Your task to perform on an android device: move an email to a new category in the gmail app Image 0: 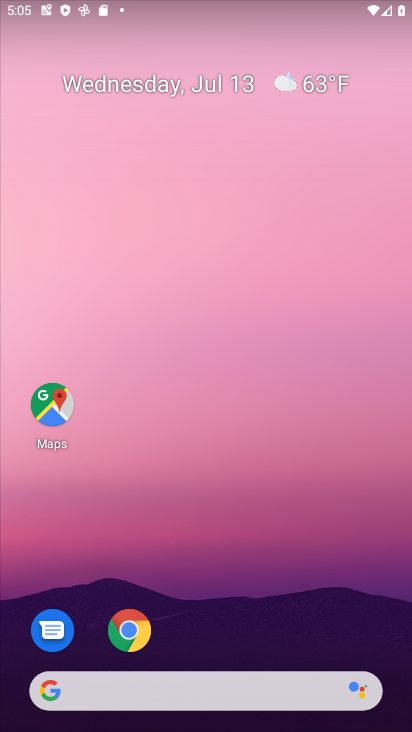
Step 0: press home button
Your task to perform on an android device: move an email to a new category in the gmail app Image 1: 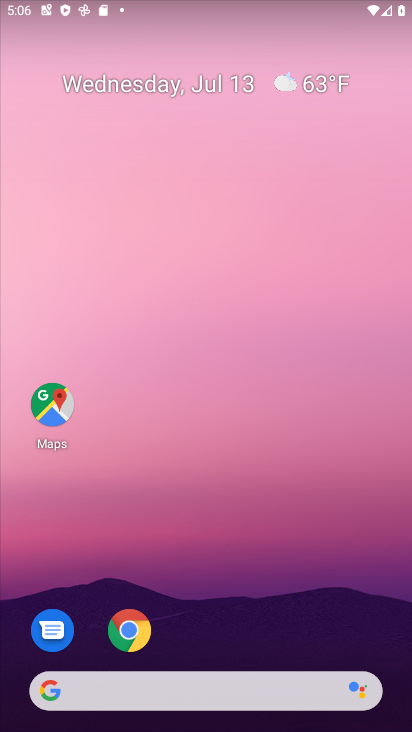
Step 1: drag from (226, 651) to (292, 157)
Your task to perform on an android device: move an email to a new category in the gmail app Image 2: 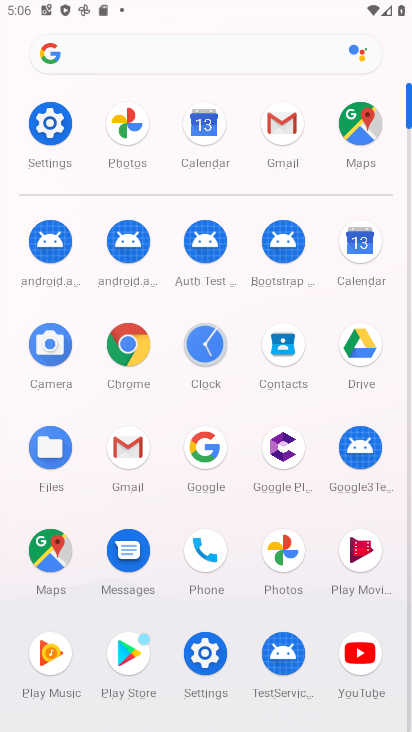
Step 2: click (130, 453)
Your task to perform on an android device: move an email to a new category in the gmail app Image 3: 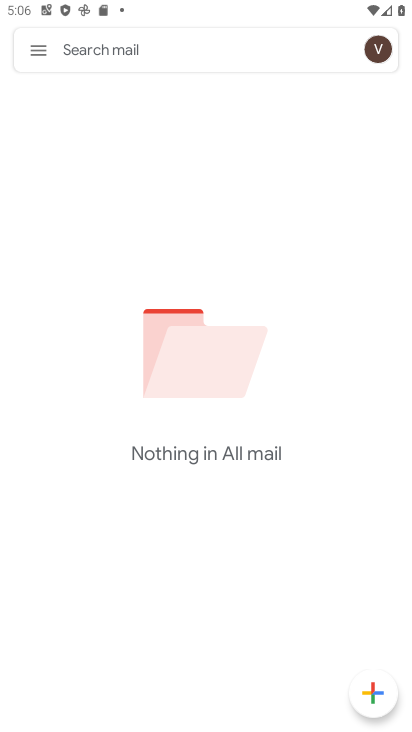
Step 3: click (36, 57)
Your task to perform on an android device: move an email to a new category in the gmail app Image 4: 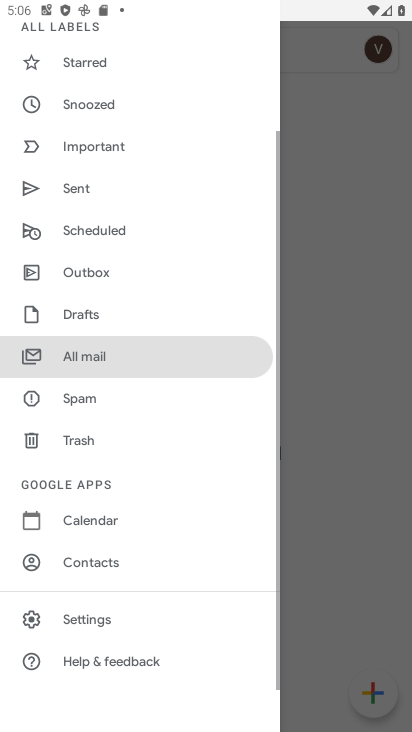
Step 4: click (93, 360)
Your task to perform on an android device: move an email to a new category in the gmail app Image 5: 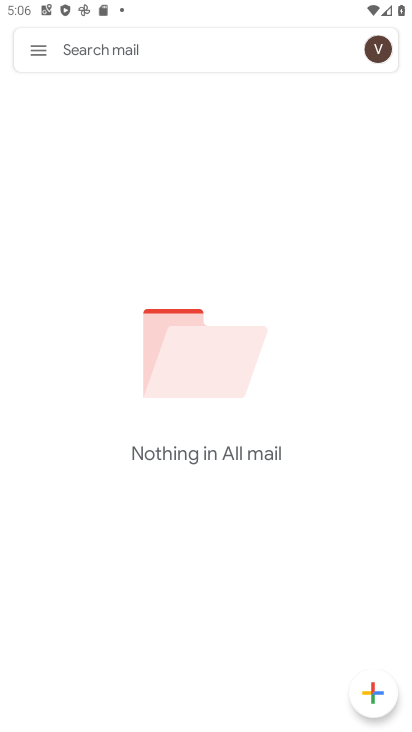
Step 5: task complete